Your task to perform on an android device: Go to display settings Image 0: 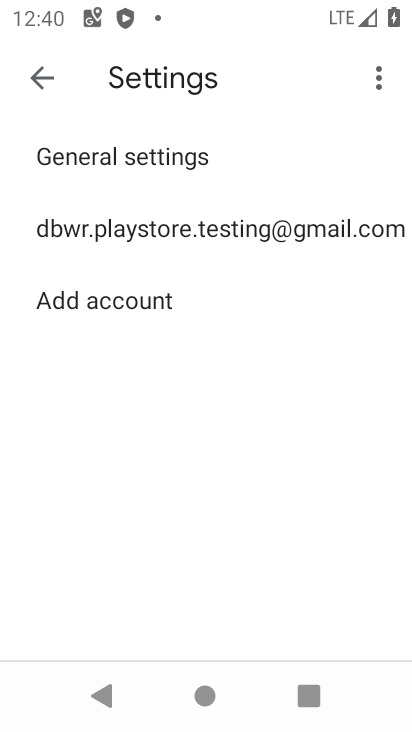
Step 0: press home button
Your task to perform on an android device: Go to display settings Image 1: 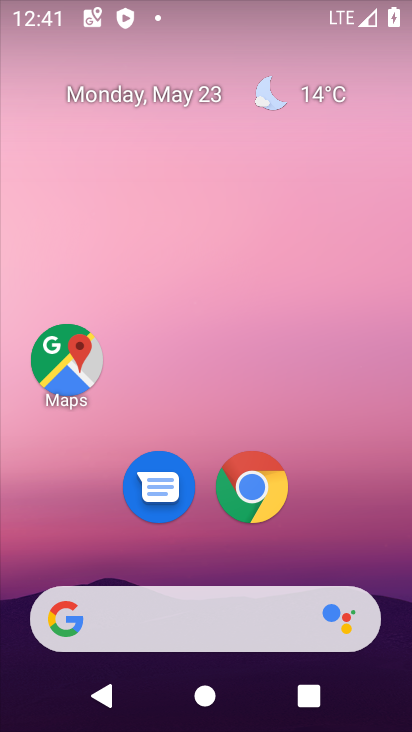
Step 1: drag from (397, 615) to (331, 76)
Your task to perform on an android device: Go to display settings Image 2: 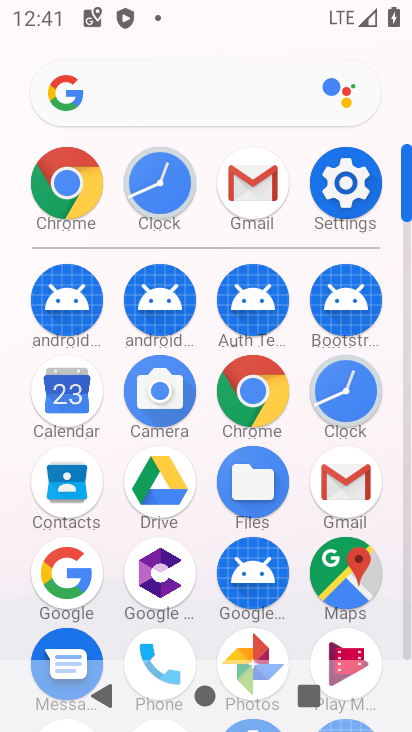
Step 2: click (407, 636)
Your task to perform on an android device: Go to display settings Image 3: 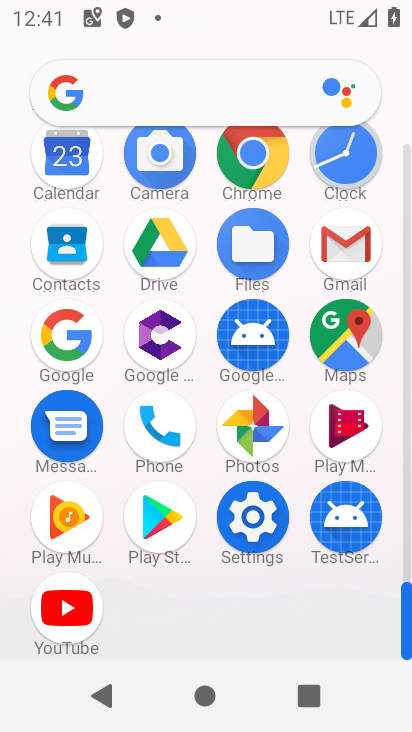
Step 3: click (252, 514)
Your task to perform on an android device: Go to display settings Image 4: 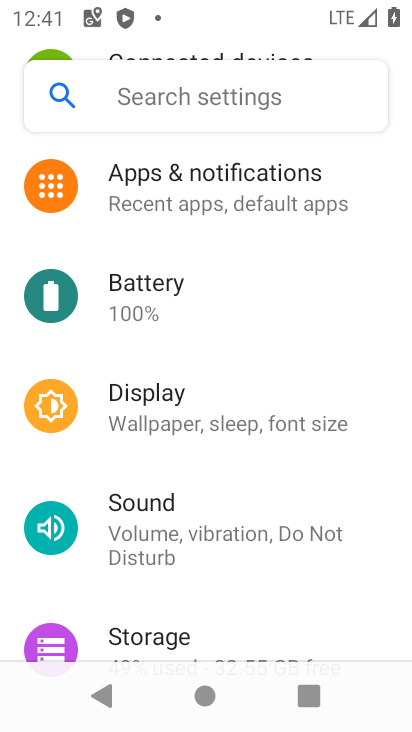
Step 4: click (143, 390)
Your task to perform on an android device: Go to display settings Image 5: 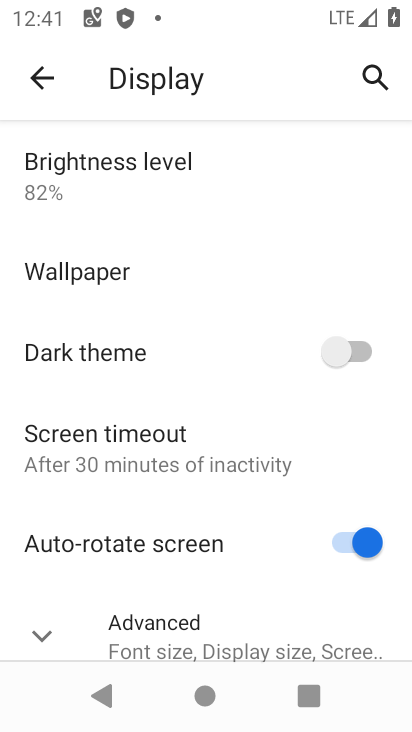
Step 5: click (36, 636)
Your task to perform on an android device: Go to display settings Image 6: 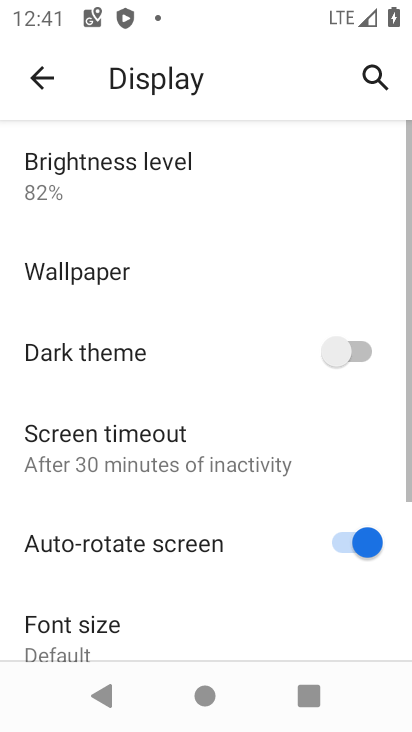
Step 6: task complete